Your task to perform on an android device: change the clock style Image 0: 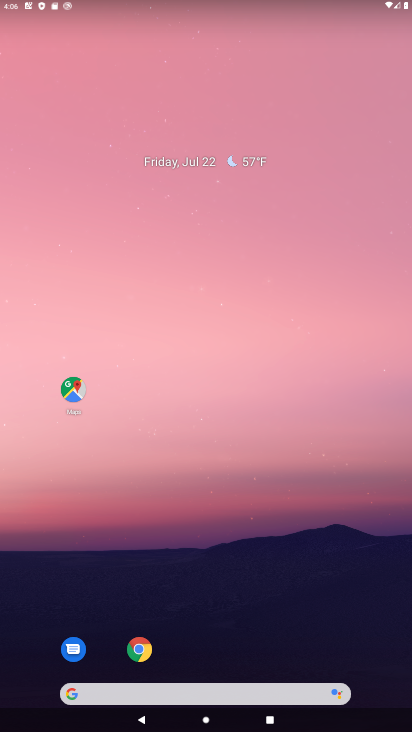
Step 0: drag from (55, 691) to (261, 1)
Your task to perform on an android device: change the clock style Image 1: 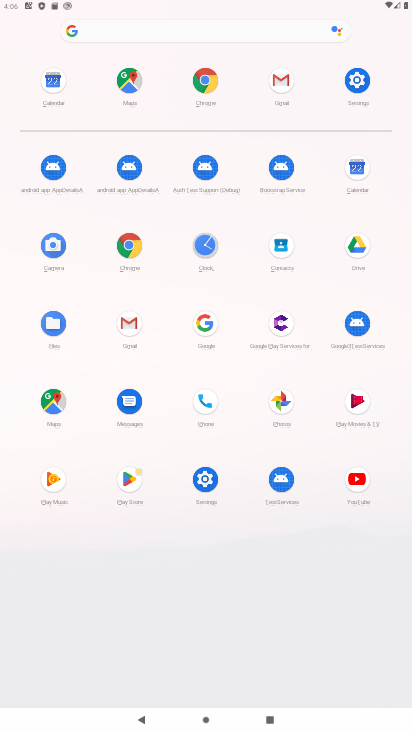
Step 1: click (209, 238)
Your task to perform on an android device: change the clock style Image 2: 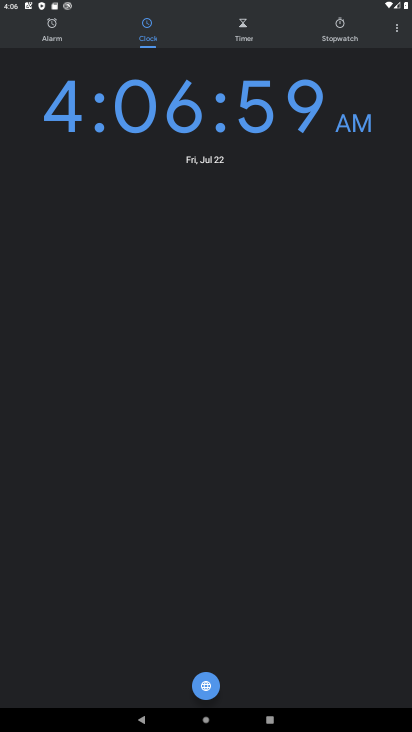
Step 2: click (397, 34)
Your task to perform on an android device: change the clock style Image 3: 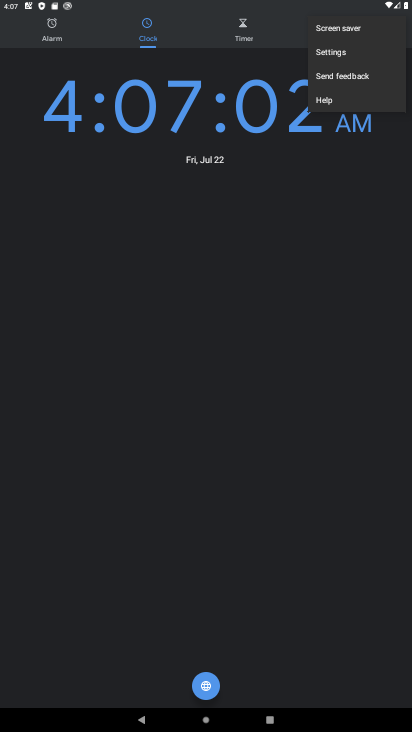
Step 3: click (357, 57)
Your task to perform on an android device: change the clock style Image 4: 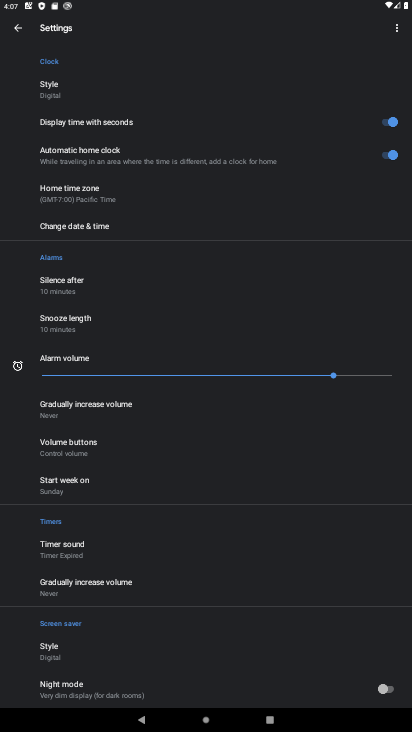
Step 4: click (34, 95)
Your task to perform on an android device: change the clock style Image 5: 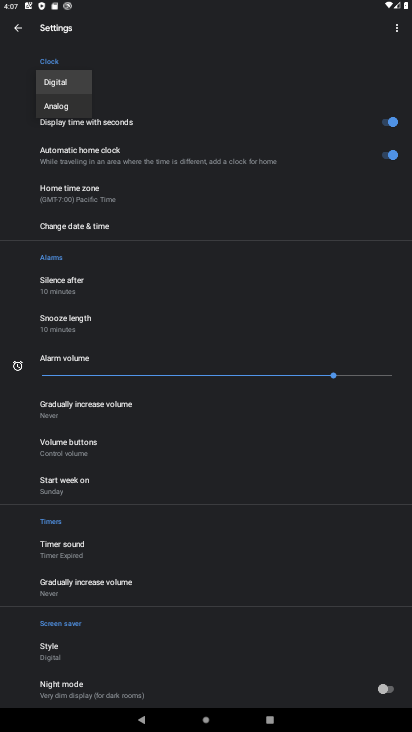
Step 5: click (56, 101)
Your task to perform on an android device: change the clock style Image 6: 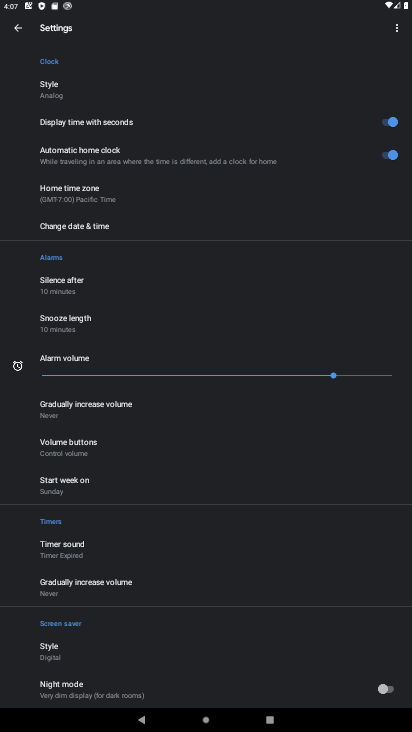
Step 6: task complete